Your task to perform on an android device: find snoozed emails in the gmail app Image 0: 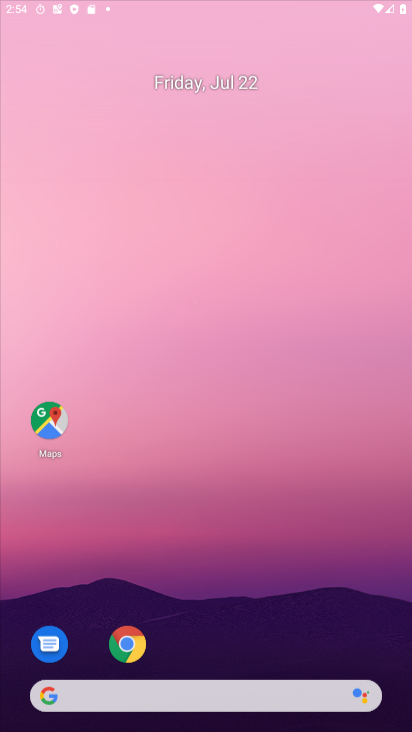
Step 0: press home button
Your task to perform on an android device: find snoozed emails in the gmail app Image 1: 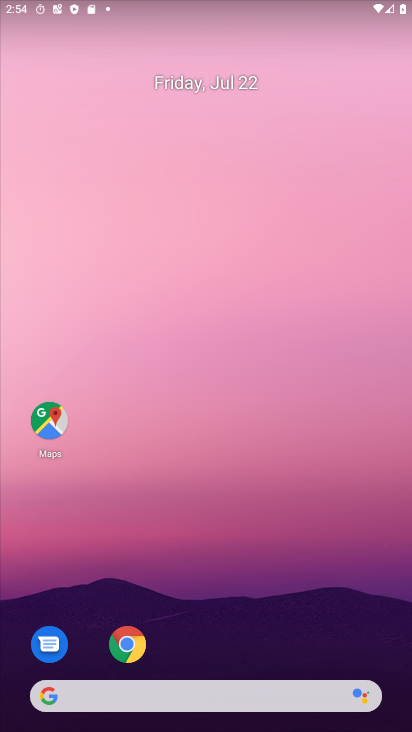
Step 1: drag from (242, 609) to (233, 122)
Your task to perform on an android device: find snoozed emails in the gmail app Image 2: 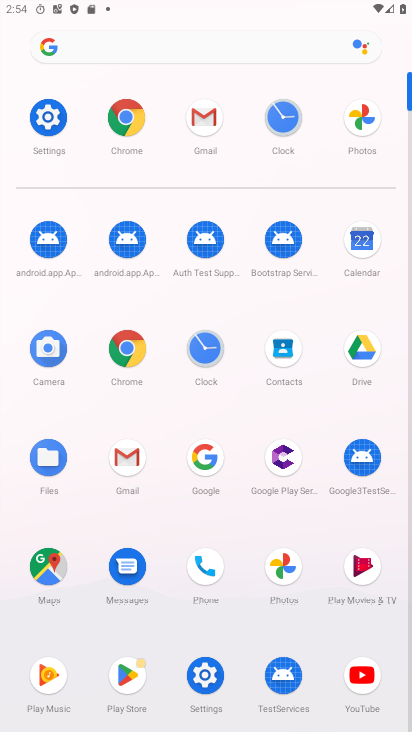
Step 2: click (200, 120)
Your task to perform on an android device: find snoozed emails in the gmail app Image 3: 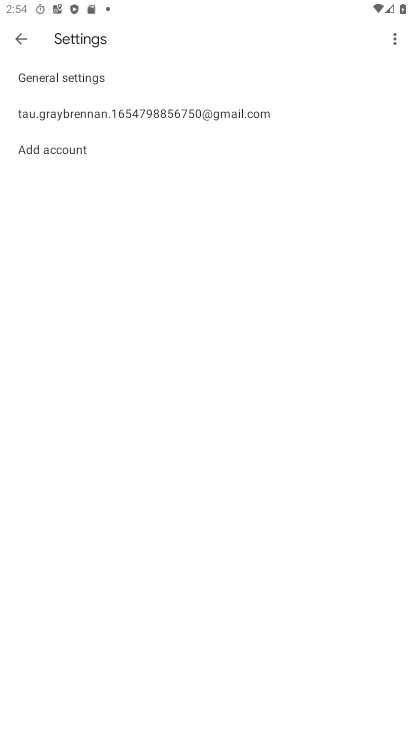
Step 3: click (19, 35)
Your task to perform on an android device: find snoozed emails in the gmail app Image 4: 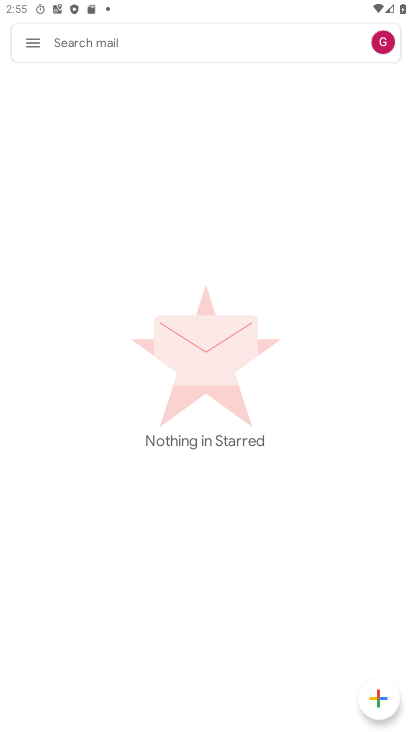
Step 4: click (21, 35)
Your task to perform on an android device: find snoozed emails in the gmail app Image 5: 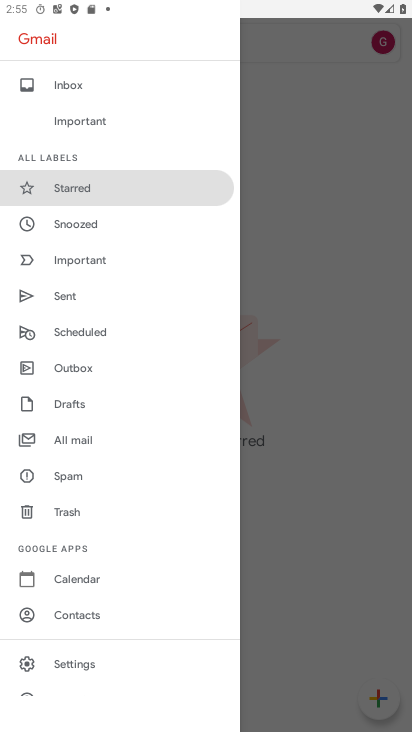
Step 5: click (92, 230)
Your task to perform on an android device: find snoozed emails in the gmail app Image 6: 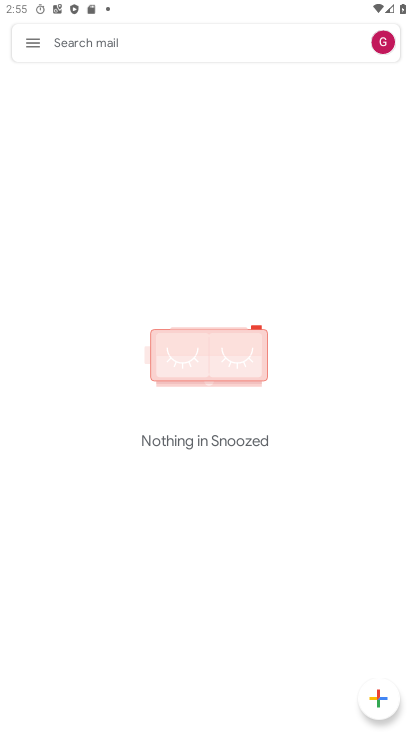
Step 6: task complete